Your task to perform on an android device: toggle sleep mode Image 0: 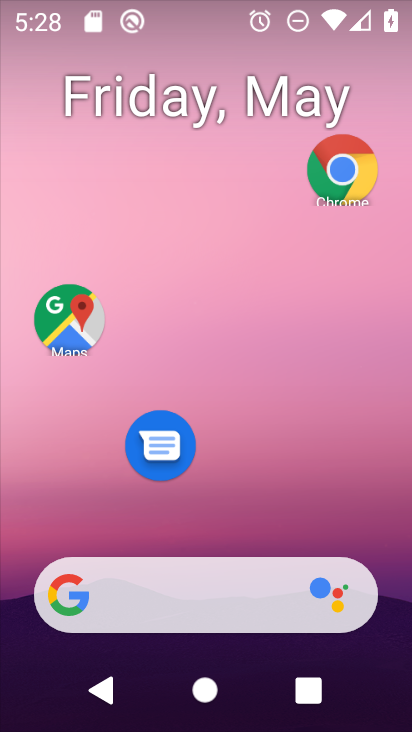
Step 0: drag from (206, 498) to (86, 1)
Your task to perform on an android device: toggle sleep mode Image 1: 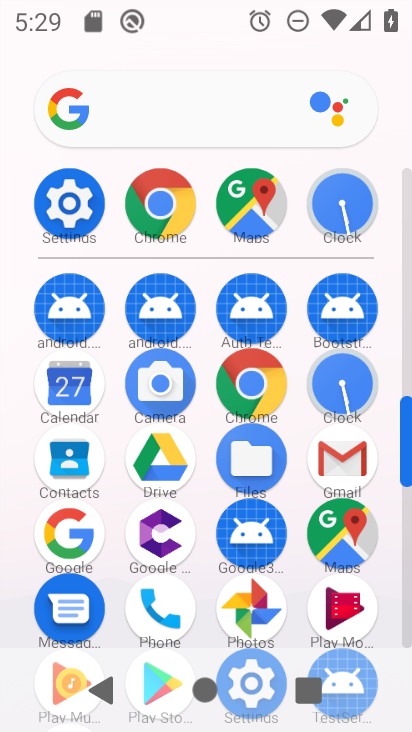
Step 1: click (66, 221)
Your task to perform on an android device: toggle sleep mode Image 2: 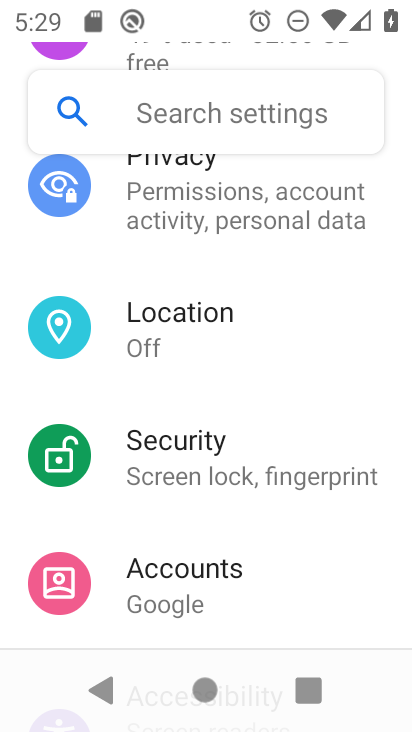
Step 2: task complete